Your task to perform on an android device: Add "lg ultragear" to the cart on amazon.com Image 0: 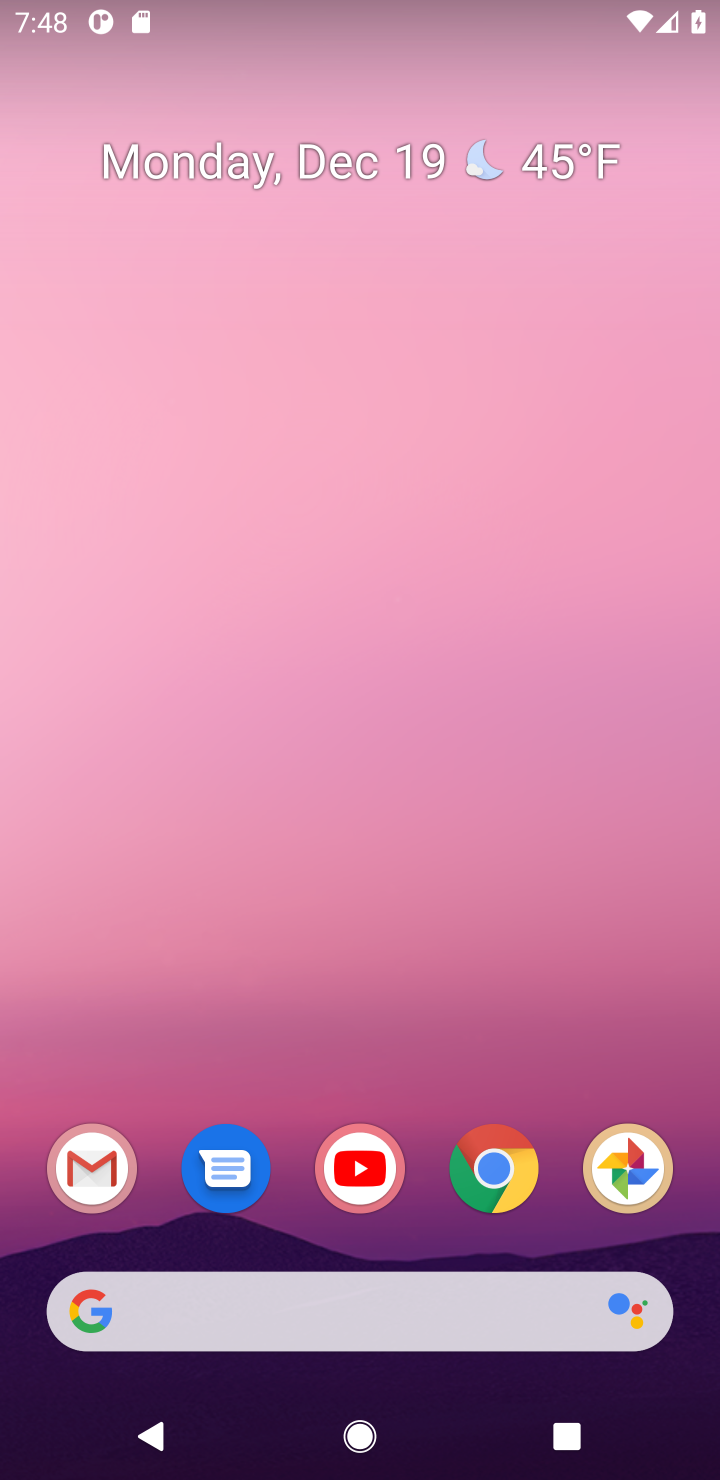
Step 0: click (490, 1188)
Your task to perform on an android device: Add "lg ultragear" to the cart on amazon.com Image 1: 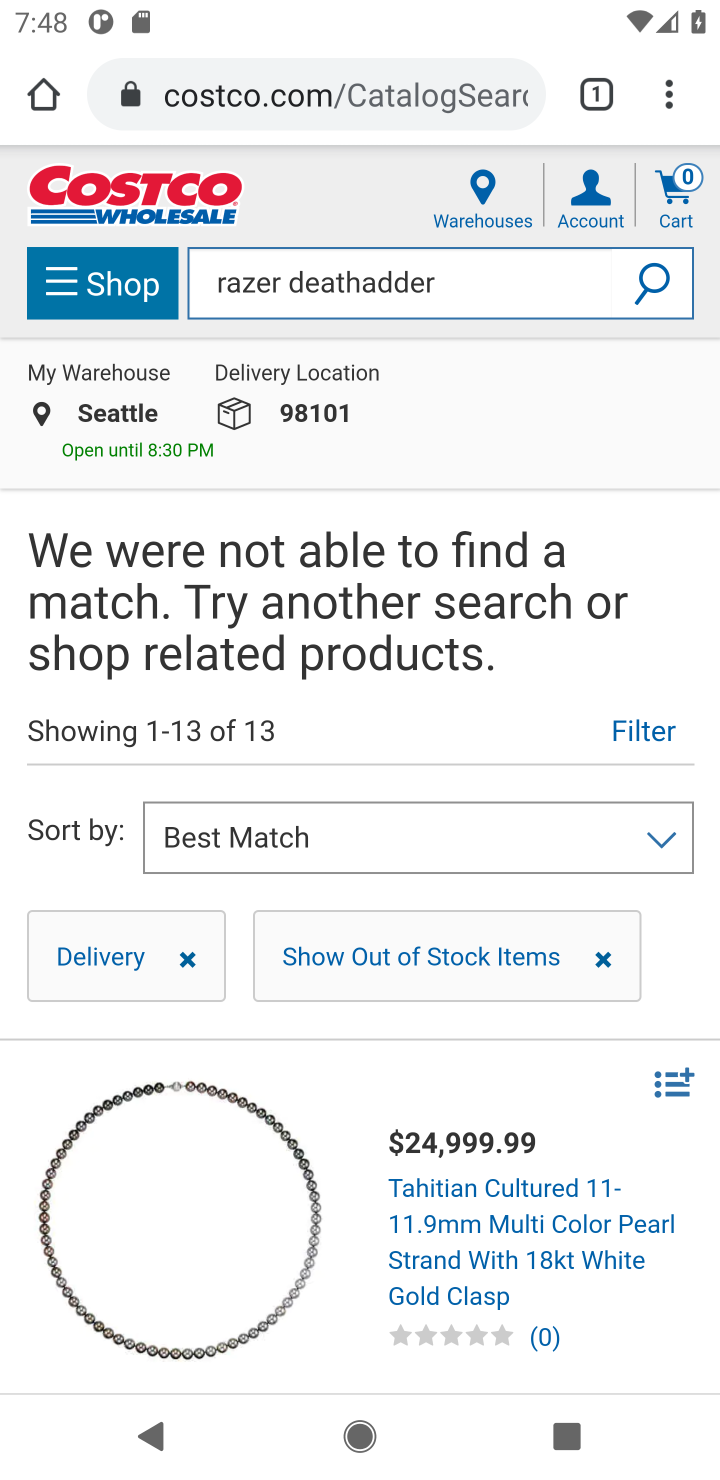
Step 1: click (270, 93)
Your task to perform on an android device: Add "lg ultragear" to the cart on amazon.com Image 2: 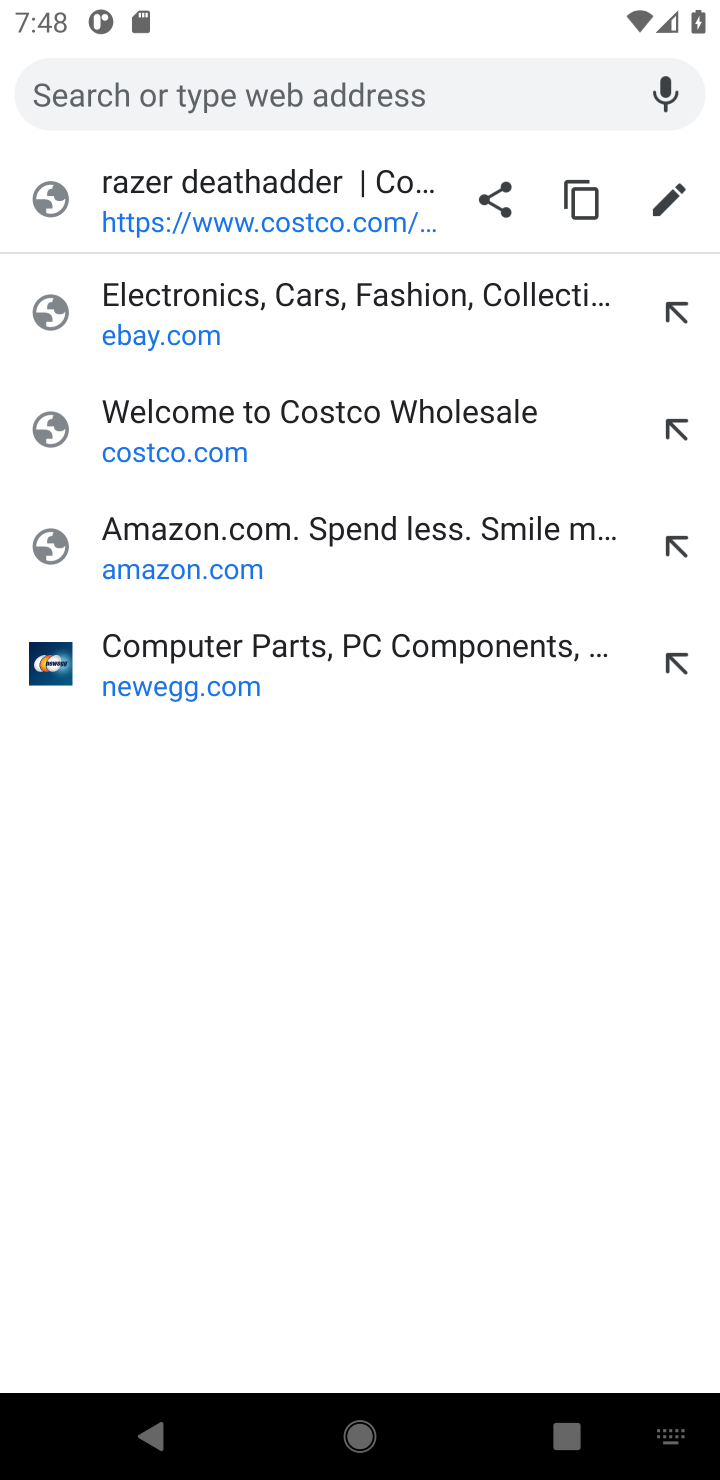
Step 2: click (146, 556)
Your task to perform on an android device: Add "lg ultragear" to the cart on amazon.com Image 3: 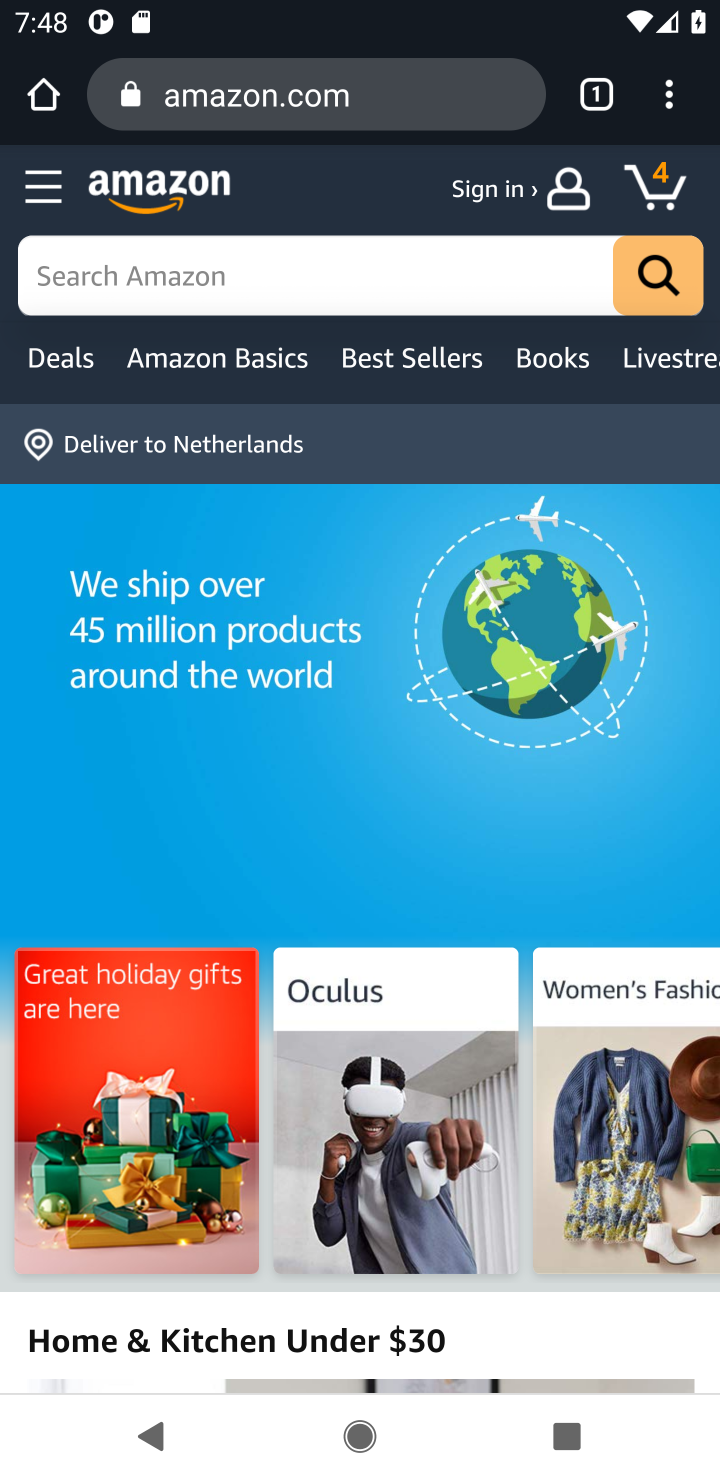
Step 3: click (184, 275)
Your task to perform on an android device: Add "lg ultragear" to the cart on amazon.com Image 4: 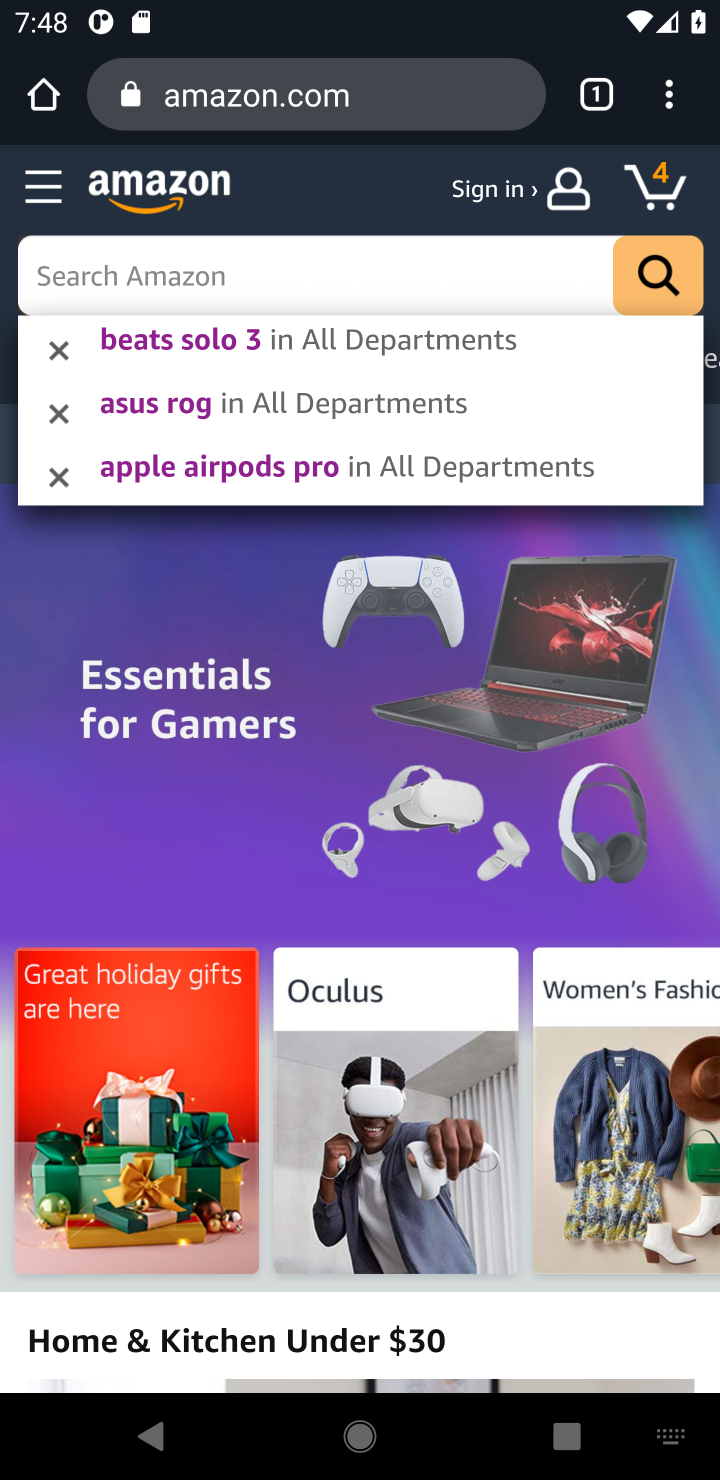
Step 4: type "lg ultragear"
Your task to perform on an android device: Add "lg ultragear" to the cart on amazon.com Image 5: 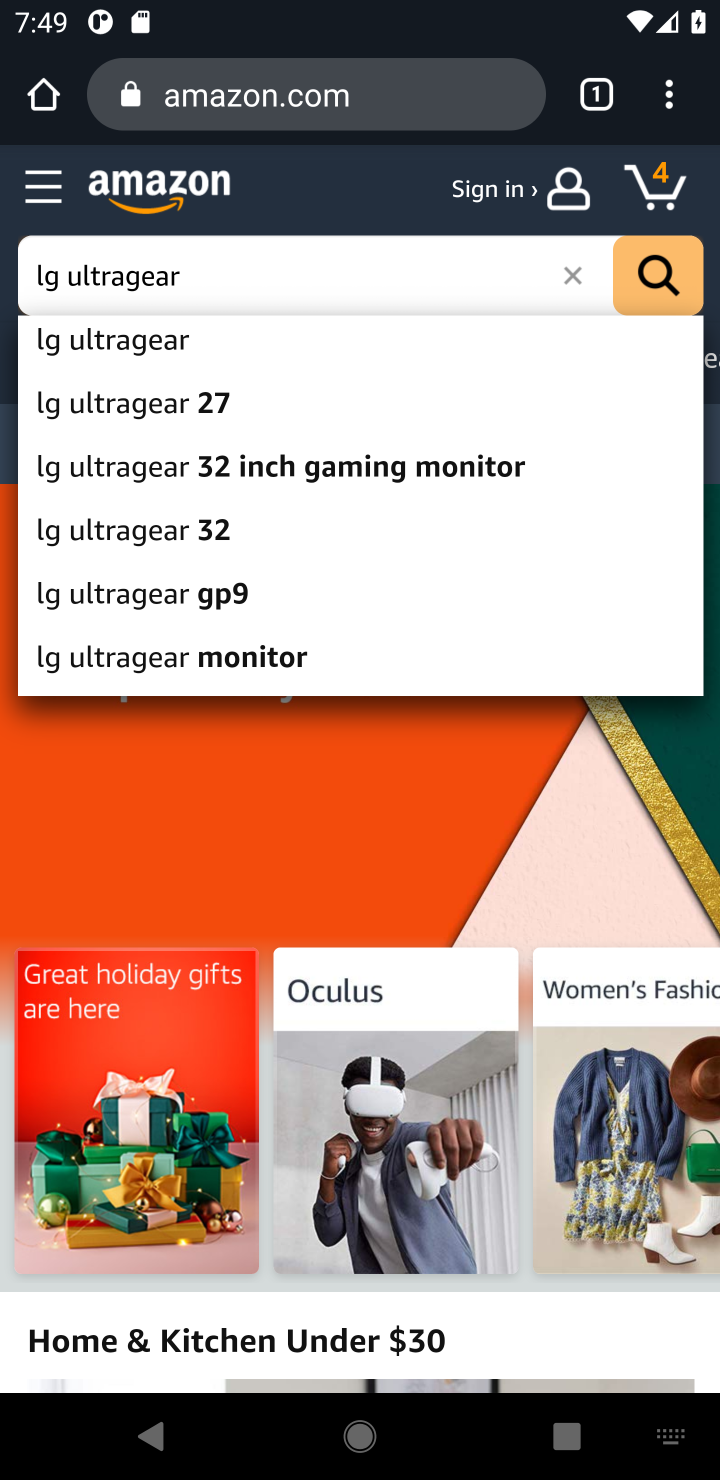
Step 5: click (109, 343)
Your task to perform on an android device: Add "lg ultragear" to the cart on amazon.com Image 6: 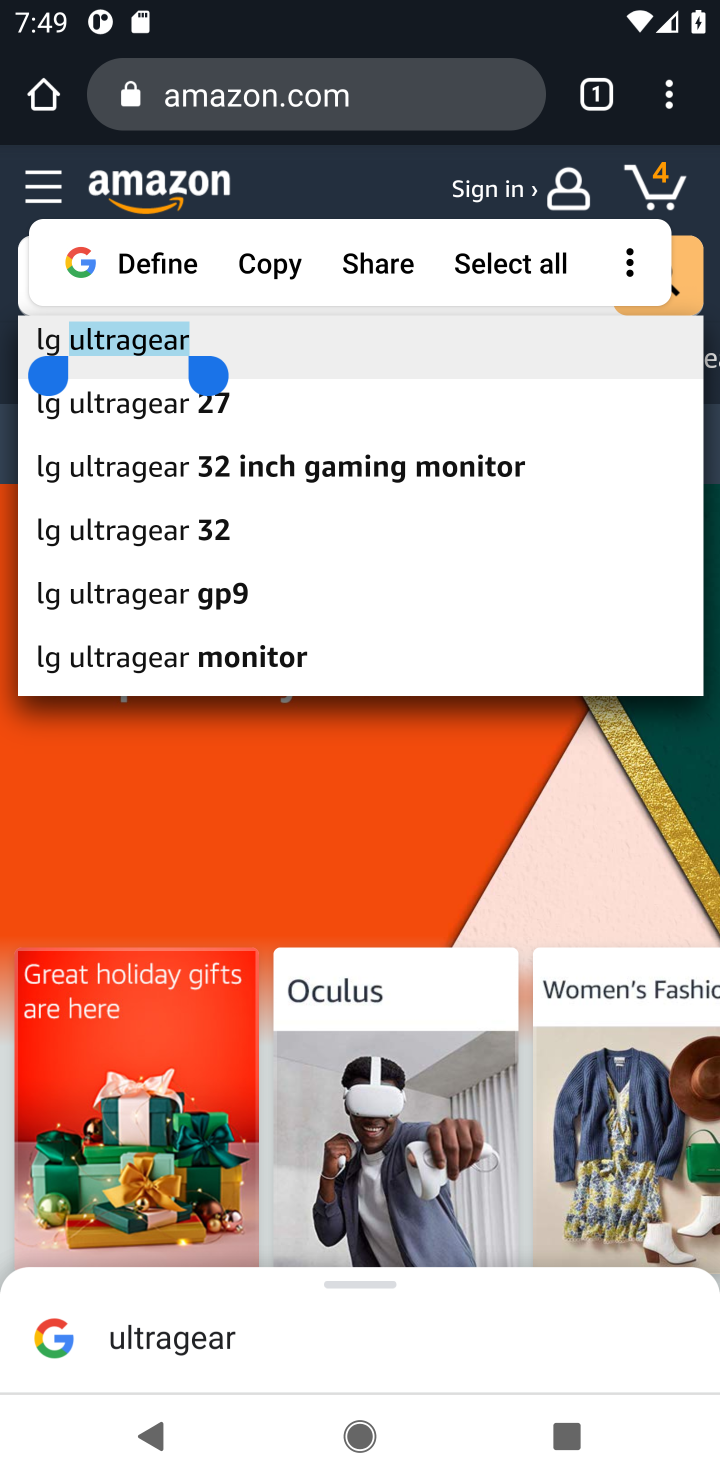
Step 6: click (63, 345)
Your task to perform on an android device: Add "lg ultragear" to the cart on amazon.com Image 7: 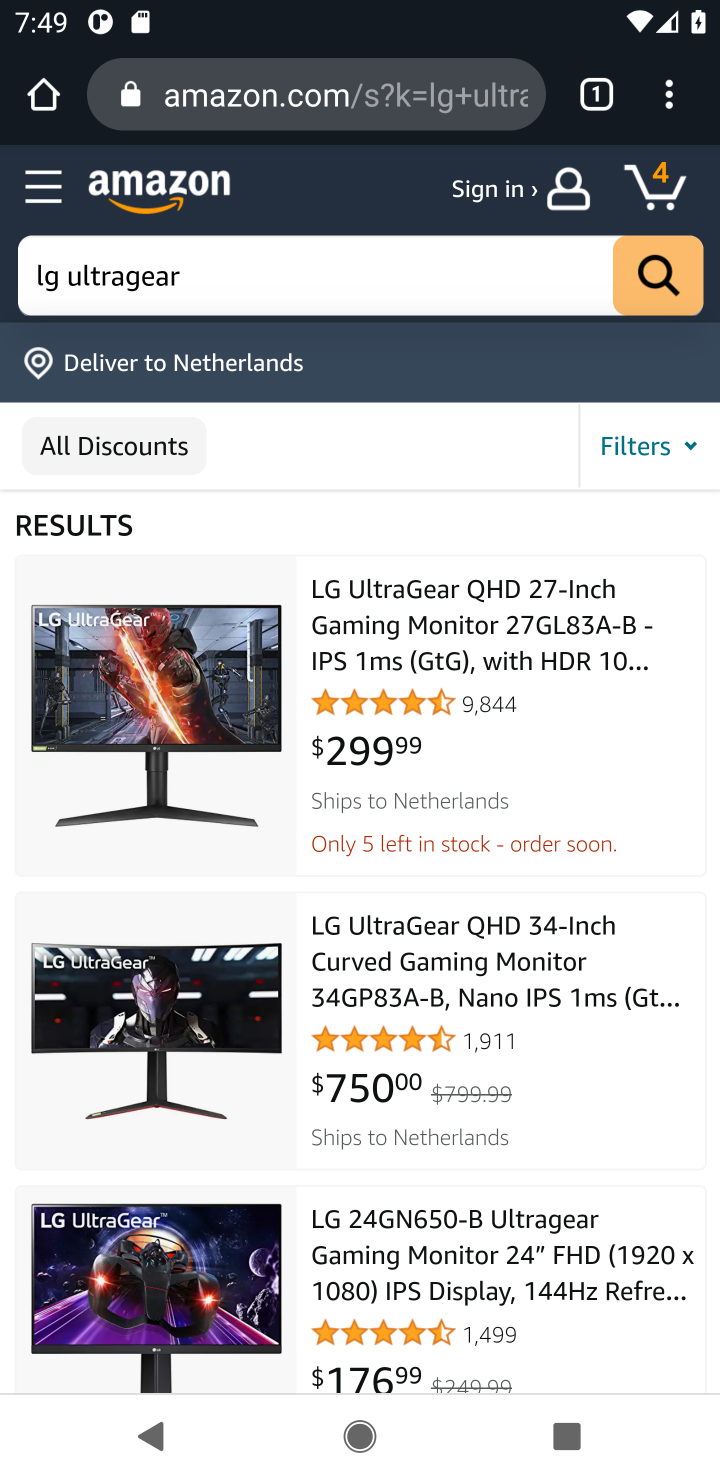
Step 7: click (383, 670)
Your task to perform on an android device: Add "lg ultragear" to the cart on amazon.com Image 8: 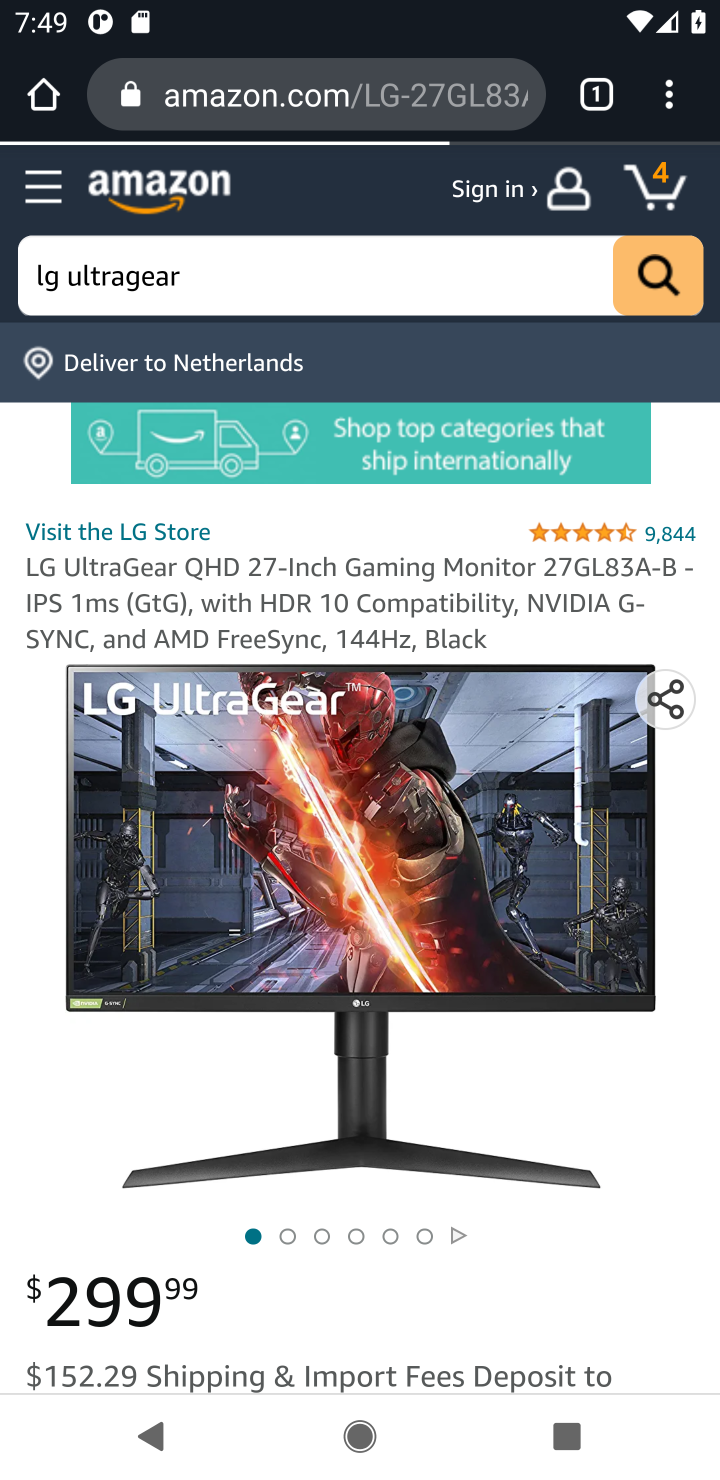
Step 8: drag from (294, 1021) to (283, 394)
Your task to perform on an android device: Add "lg ultragear" to the cart on amazon.com Image 9: 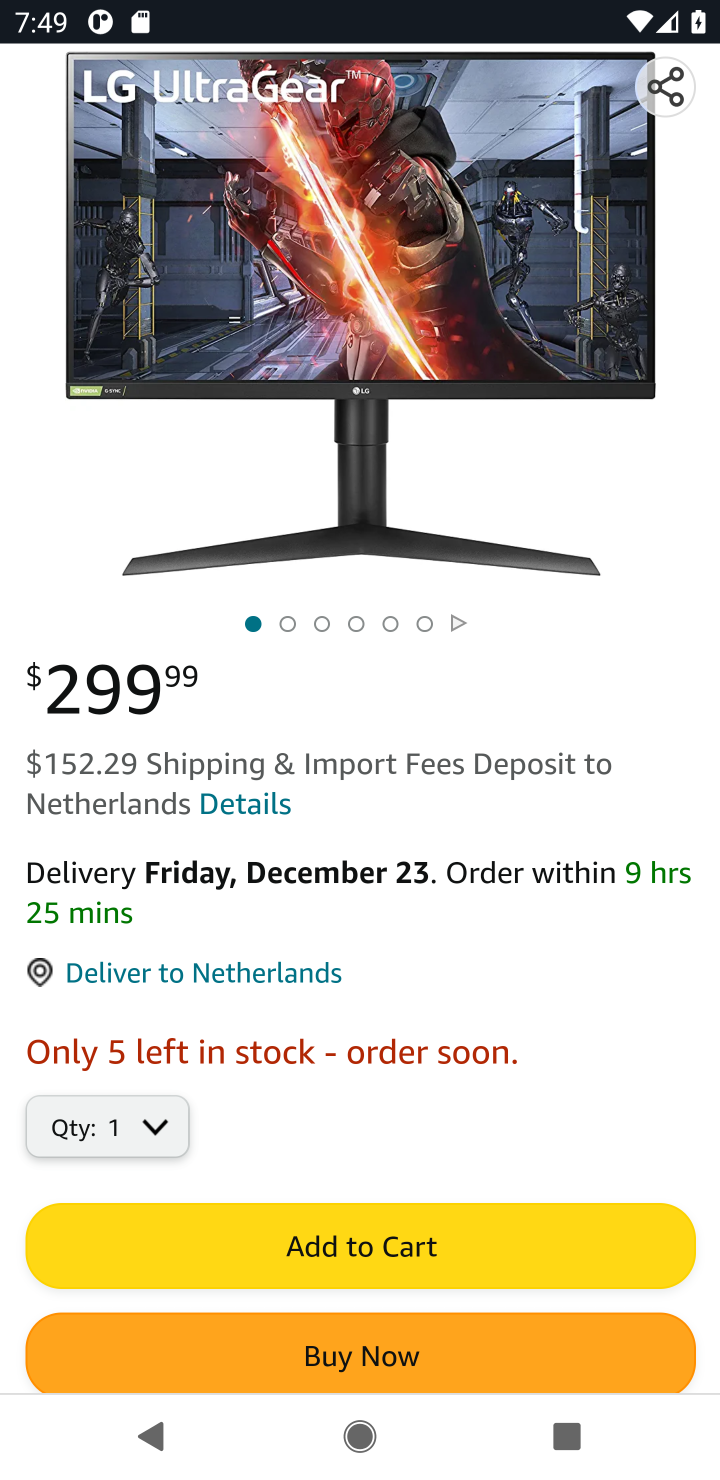
Step 9: click (334, 1238)
Your task to perform on an android device: Add "lg ultragear" to the cart on amazon.com Image 10: 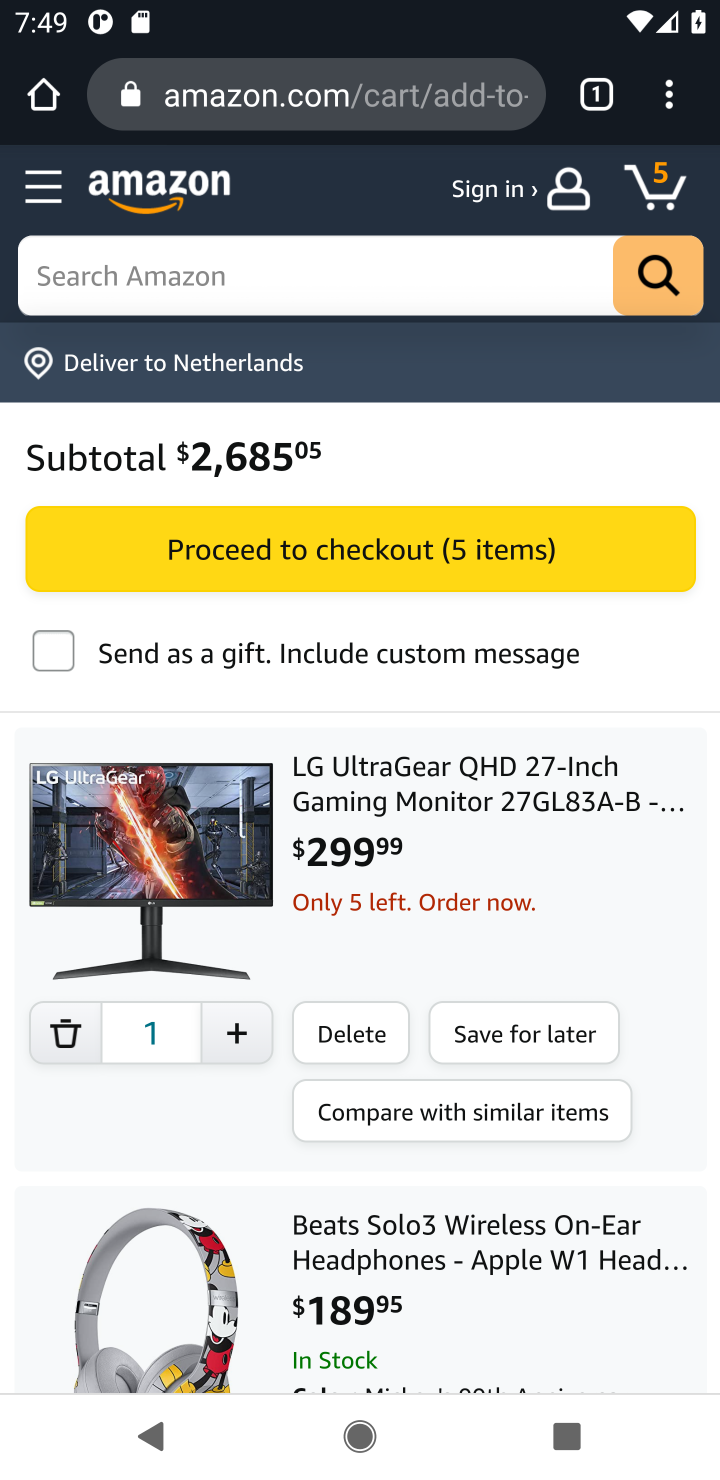
Step 10: task complete